Your task to perform on an android device: Search for macbook on ebay.com, select the first entry, and add it to the cart. Image 0: 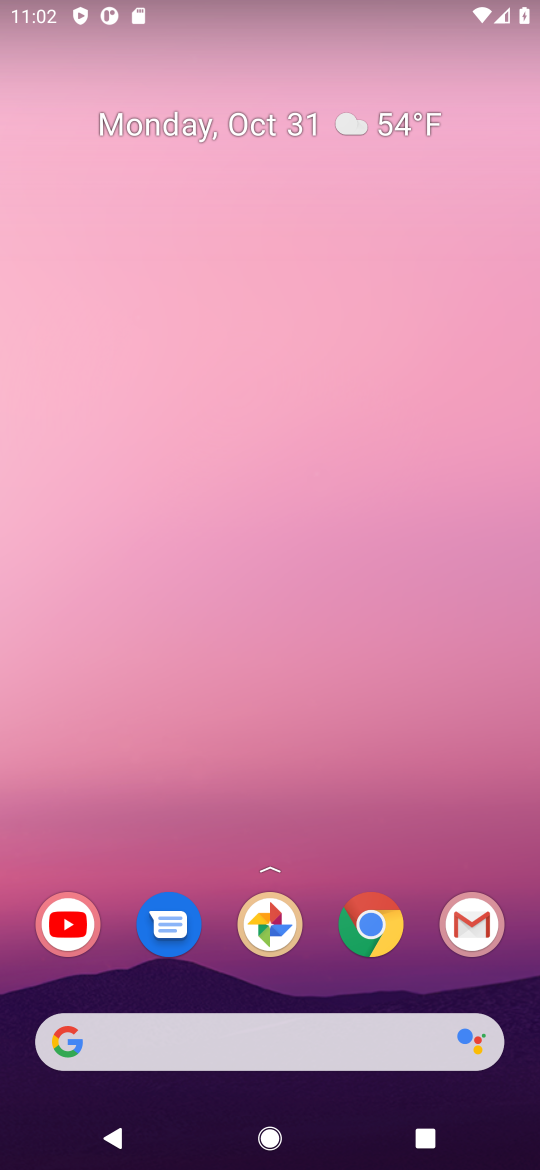
Step 0: press home button
Your task to perform on an android device: Search for macbook on ebay.com, select the first entry, and add it to the cart. Image 1: 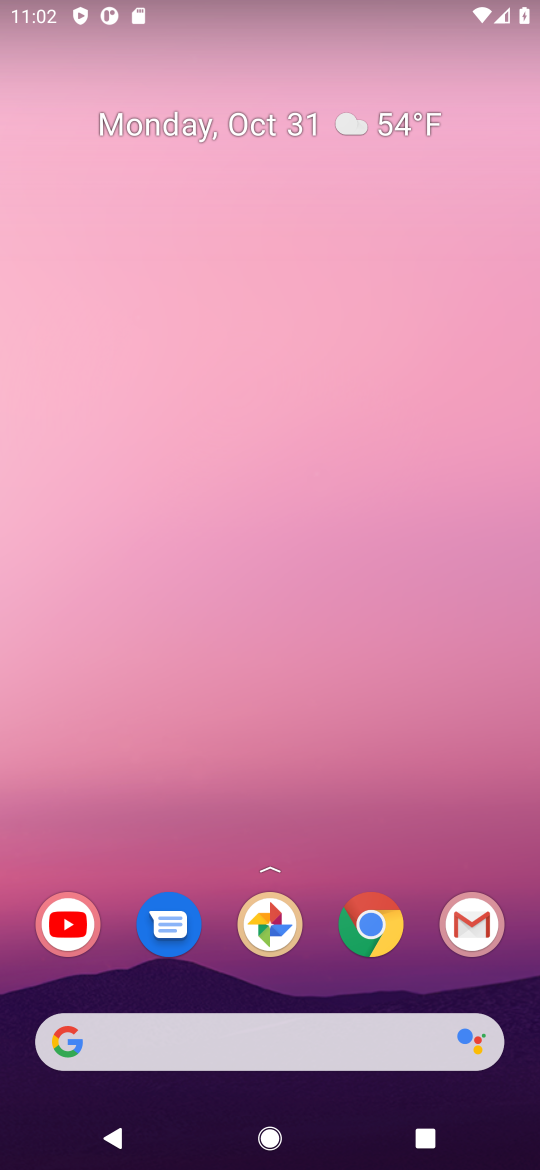
Step 1: click (384, 942)
Your task to perform on an android device: Search for macbook on ebay.com, select the first entry, and add it to the cart. Image 2: 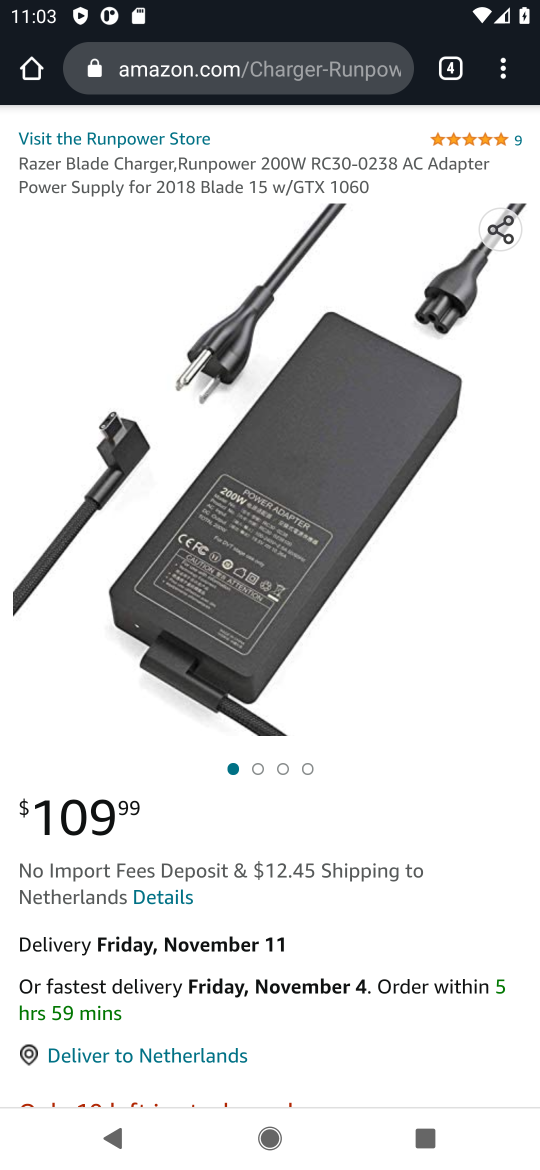
Step 2: click (302, 83)
Your task to perform on an android device: Search for macbook on ebay.com, select the first entry, and add it to the cart. Image 3: 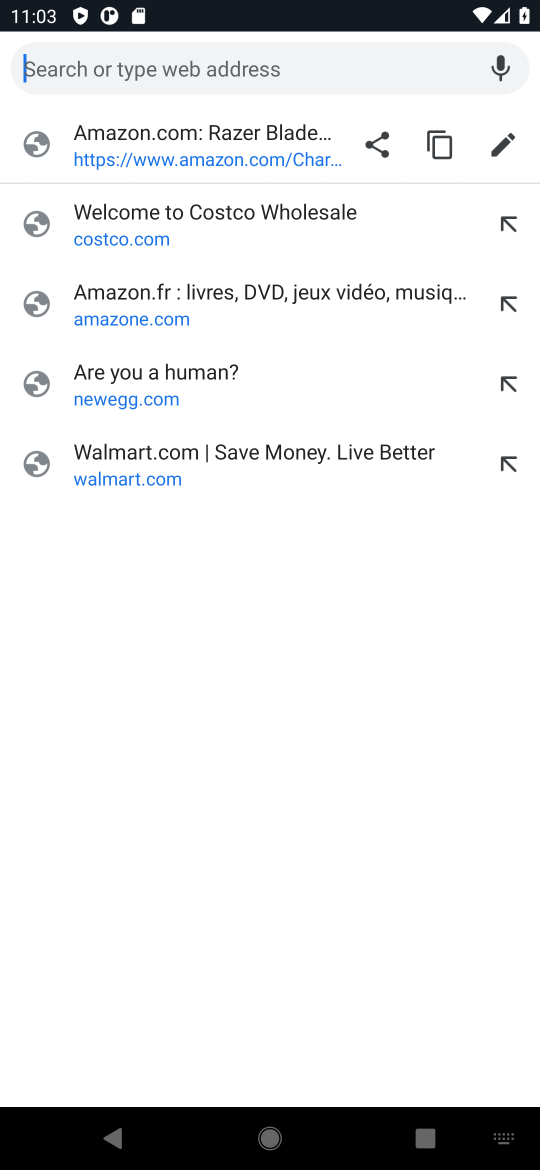
Step 3: type "ebay.com"
Your task to perform on an android device: Search for macbook on ebay.com, select the first entry, and add it to the cart. Image 4: 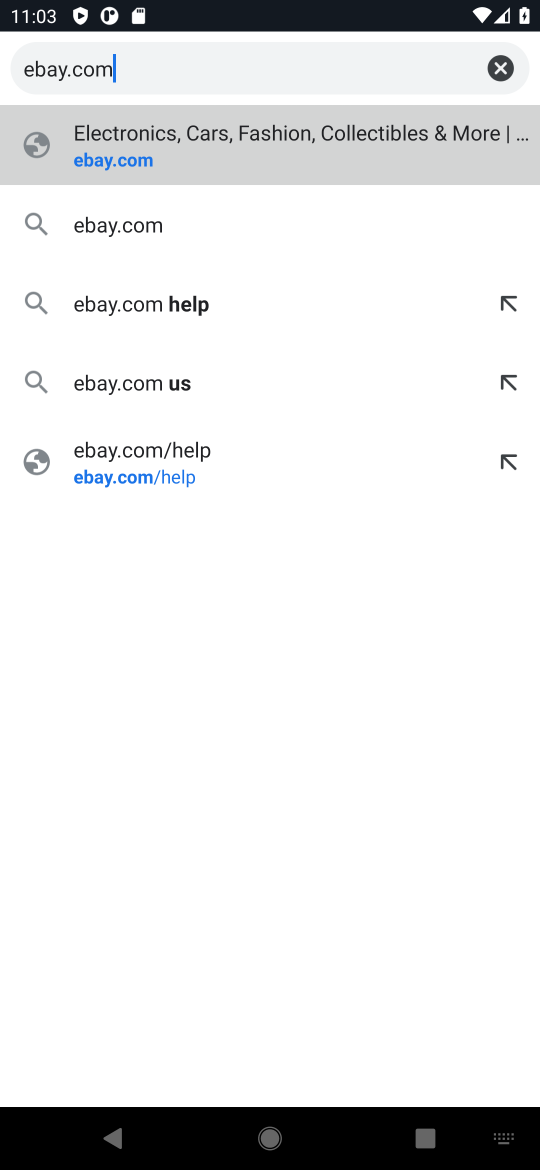
Step 4: click (154, 175)
Your task to perform on an android device: Search for macbook on ebay.com, select the first entry, and add it to the cart. Image 5: 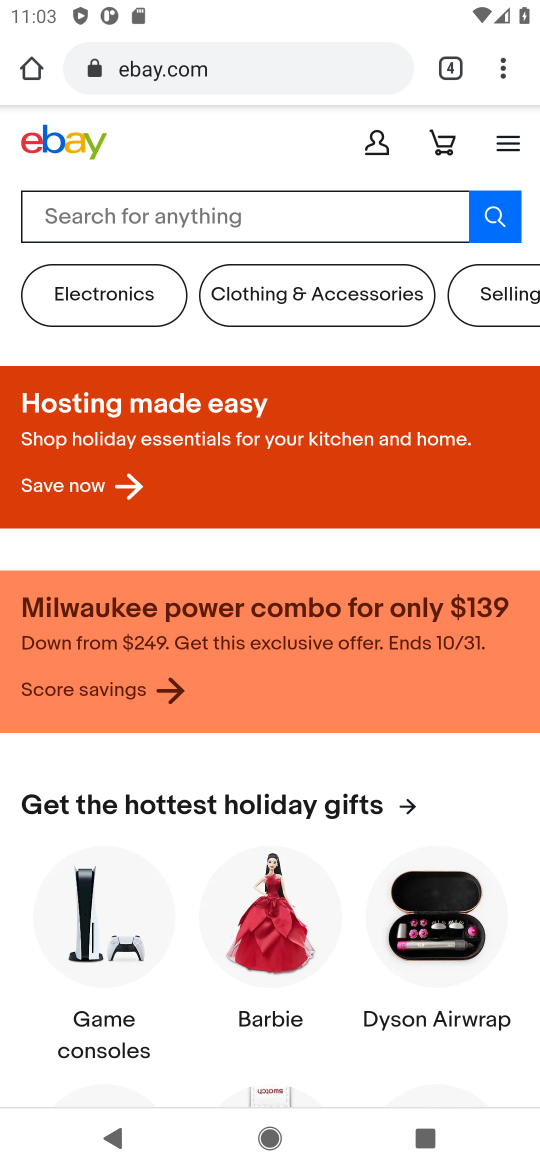
Step 5: click (230, 225)
Your task to perform on an android device: Search for macbook on ebay.com, select the first entry, and add it to the cart. Image 6: 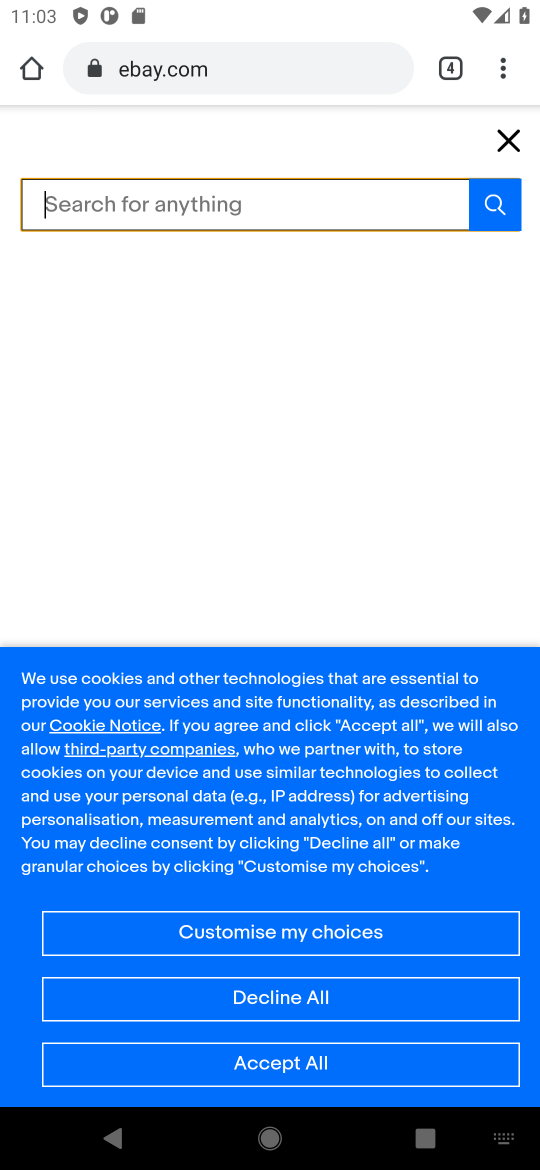
Step 6: type "macbook"
Your task to perform on an android device: Search for macbook on ebay.com, select the first entry, and add it to the cart. Image 7: 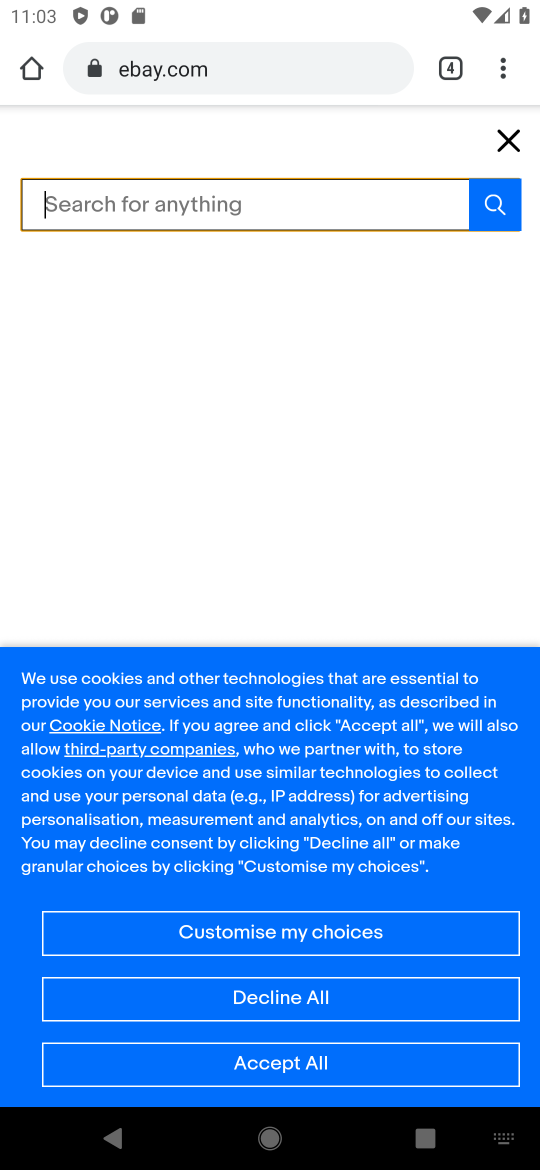
Step 7: click (277, 1063)
Your task to perform on an android device: Search for macbook on ebay.com, select the first entry, and add it to the cart. Image 8: 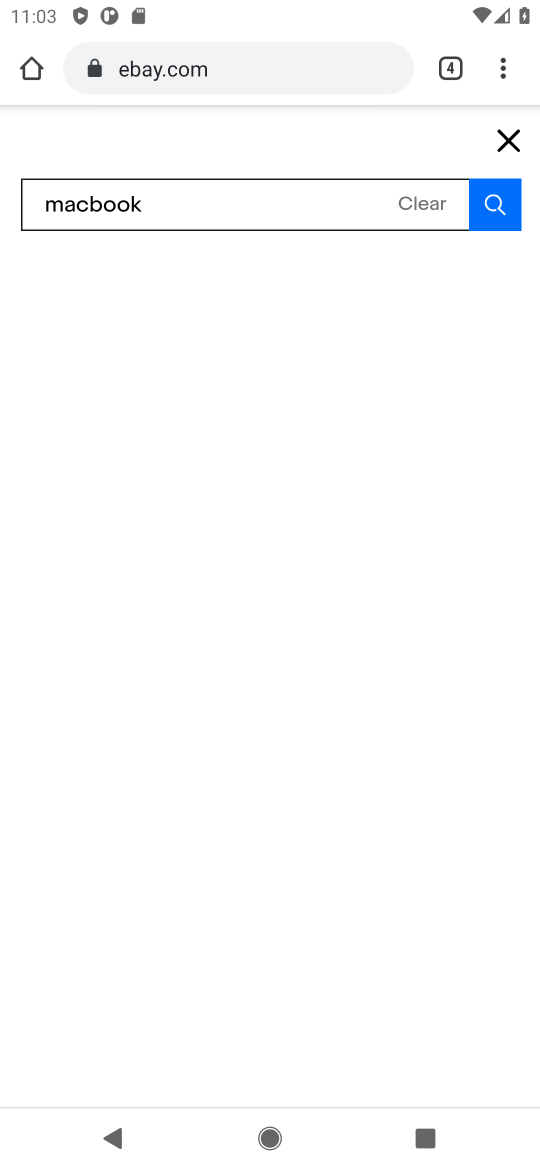
Step 8: click (233, 203)
Your task to perform on an android device: Search for macbook on ebay.com, select the first entry, and add it to the cart. Image 9: 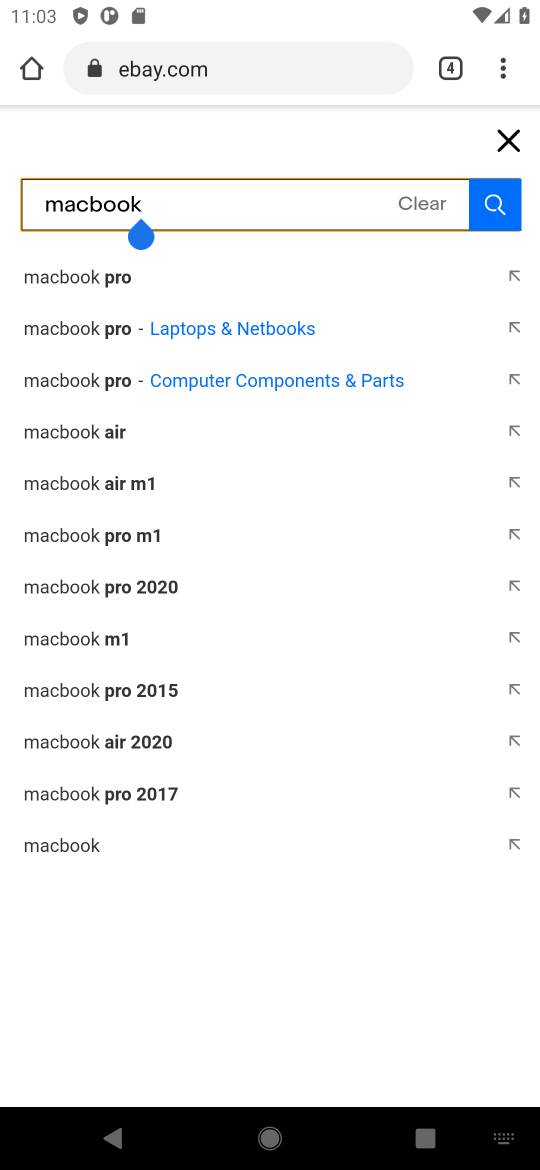
Step 9: click (119, 285)
Your task to perform on an android device: Search for macbook on ebay.com, select the first entry, and add it to the cart. Image 10: 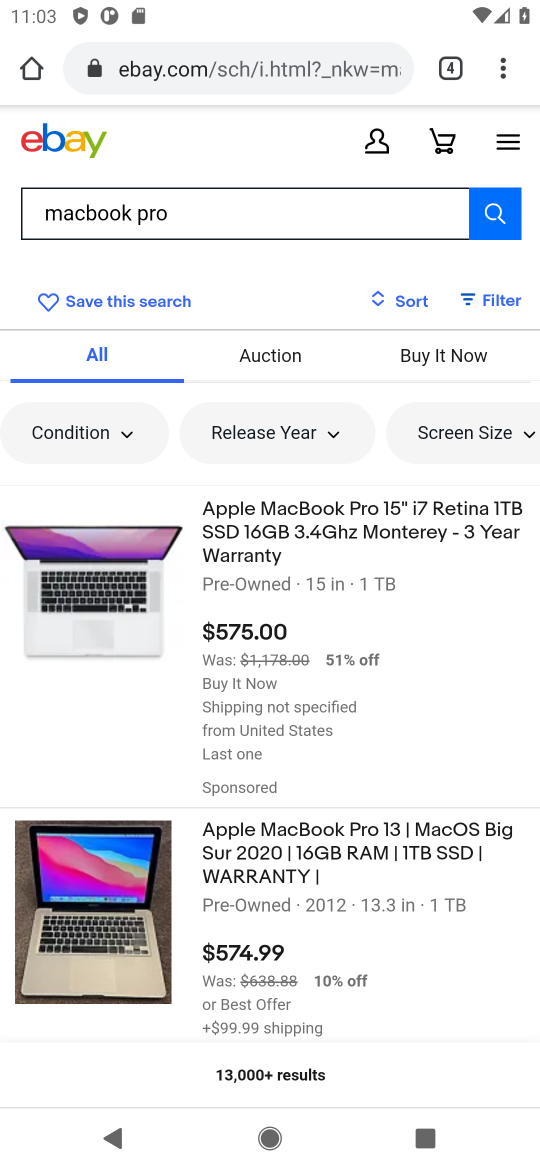
Step 10: click (136, 597)
Your task to perform on an android device: Search for macbook on ebay.com, select the first entry, and add it to the cart. Image 11: 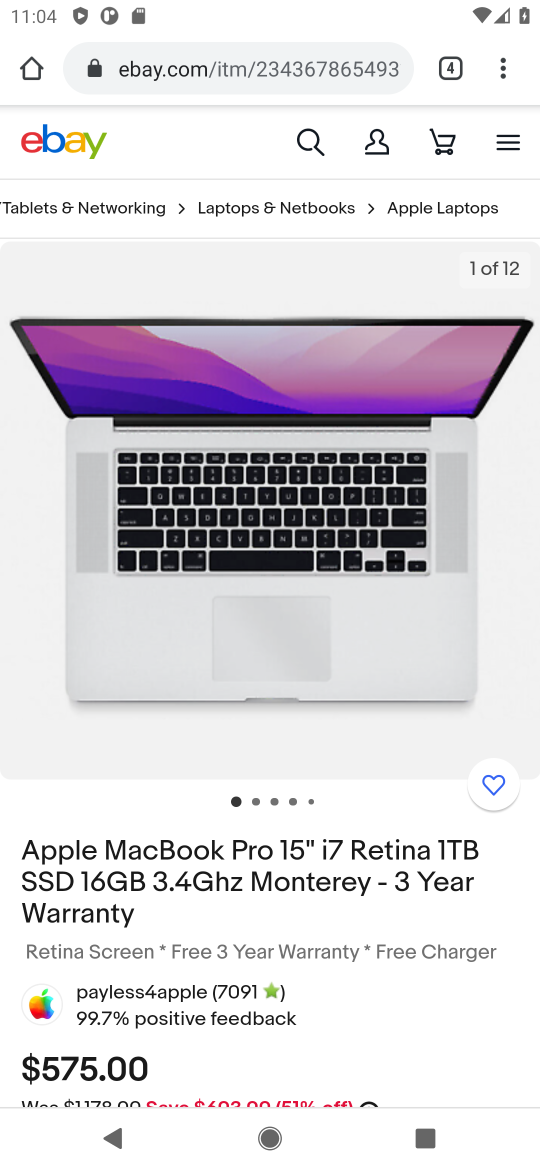
Step 11: drag from (323, 648) to (359, 424)
Your task to perform on an android device: Search for macbook on ebay.com, select the first entry, and add it to the cart. Image 12: 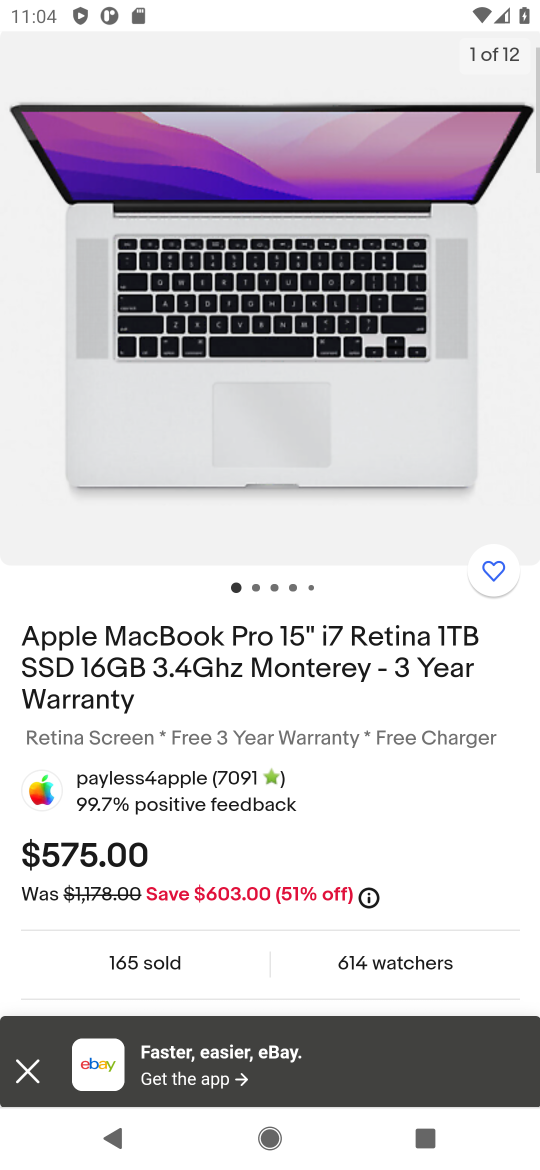
Step 12: drag from (295, 694) to (313, 402)
Your task to perform on an android device: Search for macbook on ebay.com, select the first entry, and add it to the cart. Image 13: 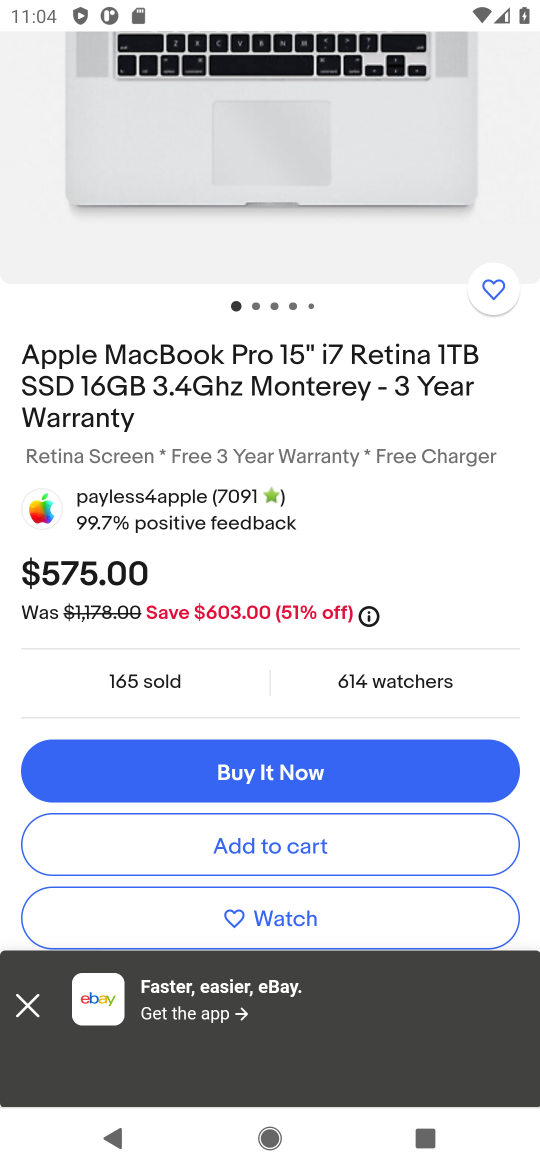
Step 13: drag from (283, 647) to (333, 452)
Your task to perform on an android device: Search for macbook on ebay.com, select the first entry, and add it to the cart. Image 14: 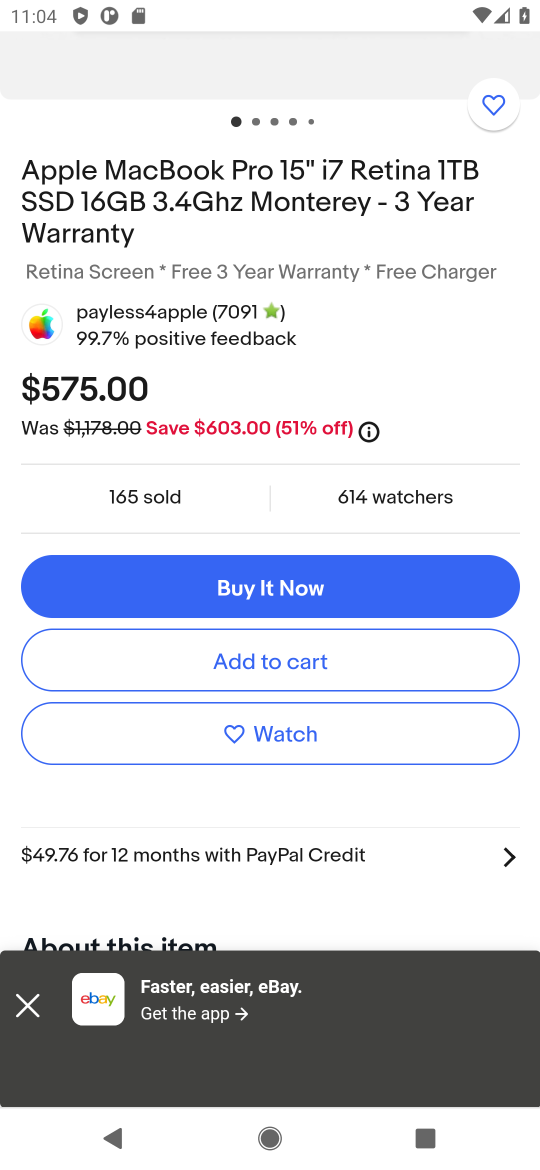
Step 14: drag from (295, 830) to (359, 539)
Your task to perform on an android device: Search for macbook on ebay.com, select the first entry, and add it to the cart. Image 15: 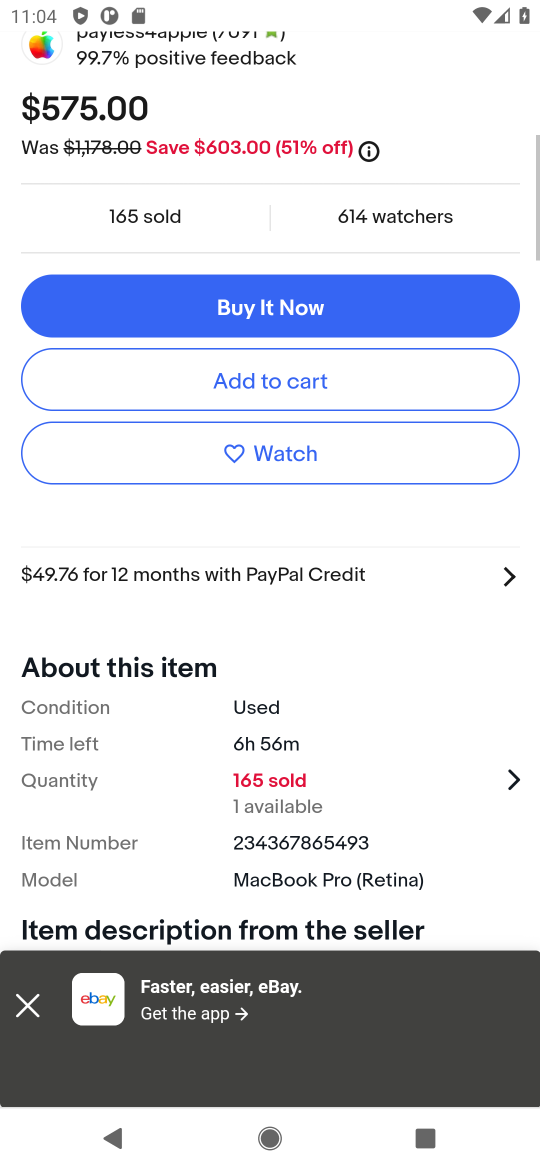
Step 15: drag from (290, 767) to (339, 504)
Your task to perform on an android device: Search for macbook on ebay.com, select the first entry, and add it to the cart. Image 16: 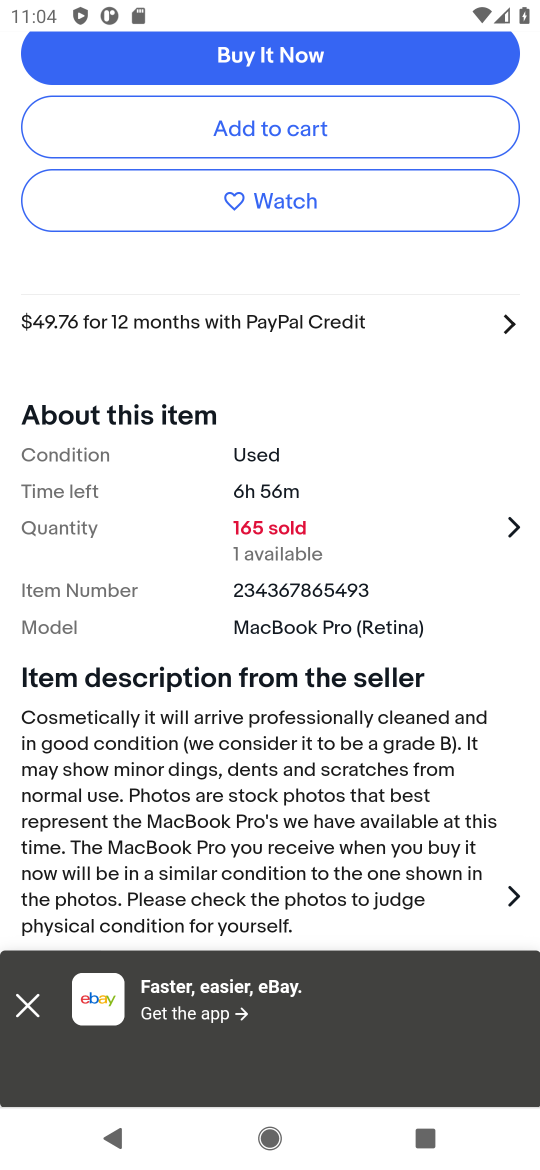
Step 16: drag from (300, 741) to (348, 545)
Your task to perform on an android device: Search for macbook on ebay.com, select the first entry, and add it to the cart. Image 17: 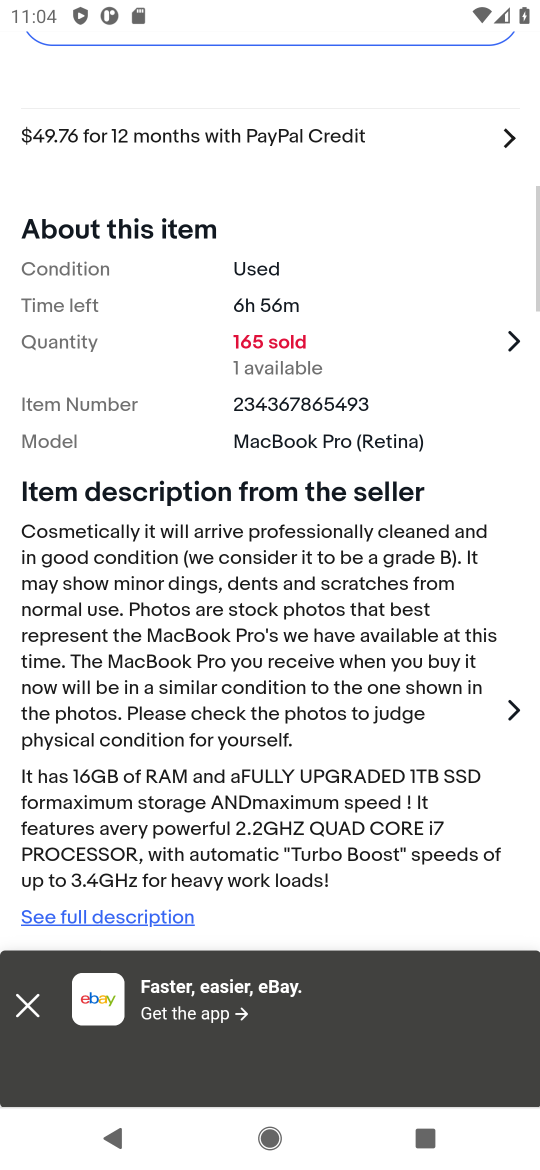
Step 17: drag from (348, 545) to (348, 779)
Your task to perform on an android device: Search for macbook on ebay.com, select the first entry, and add it to the cart. Image 18: 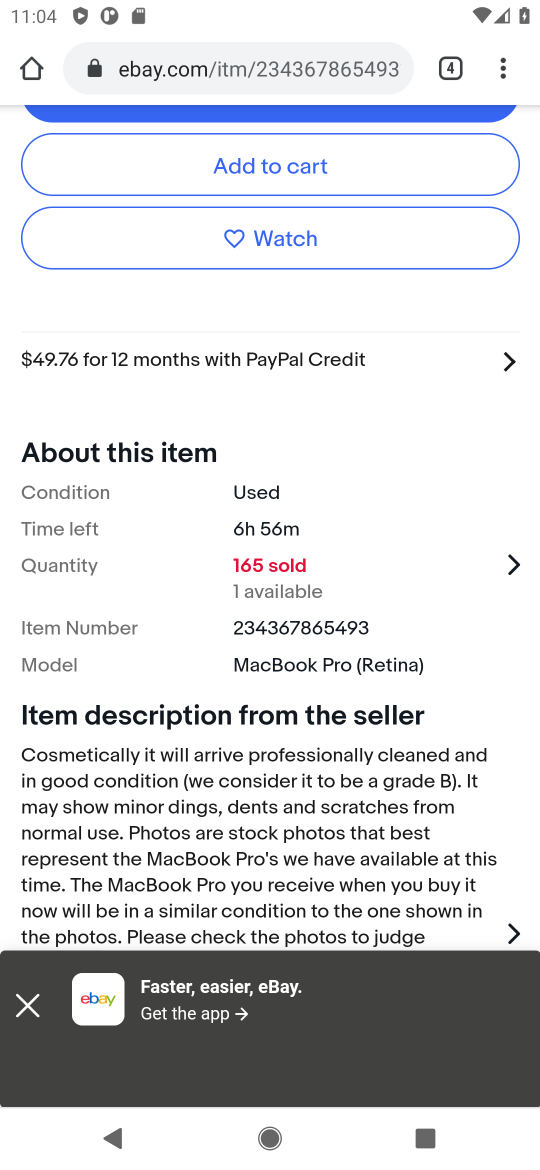
Step 18: drag from (331, 543) to (318, 832)
Your task to perform on an android device: Search for macbook on ebay.com, select the first entry, and add it to the cart. Image 19: 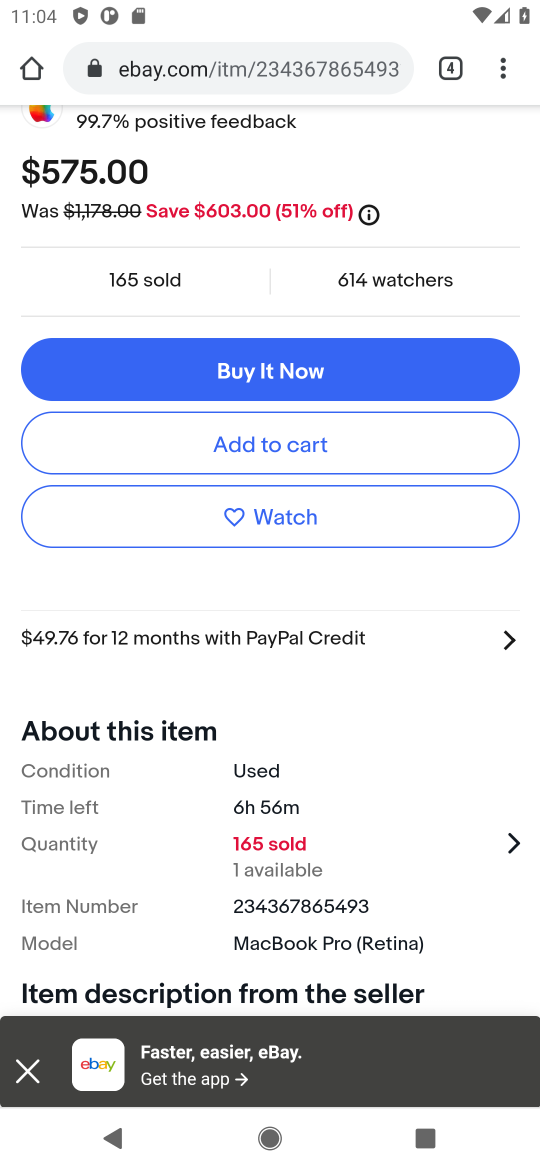
Step 19: click (290, 453)
Your task to perform on an android device: Search for macbook on ebay.com, select the first entry, and add it to the cart. Image 20: 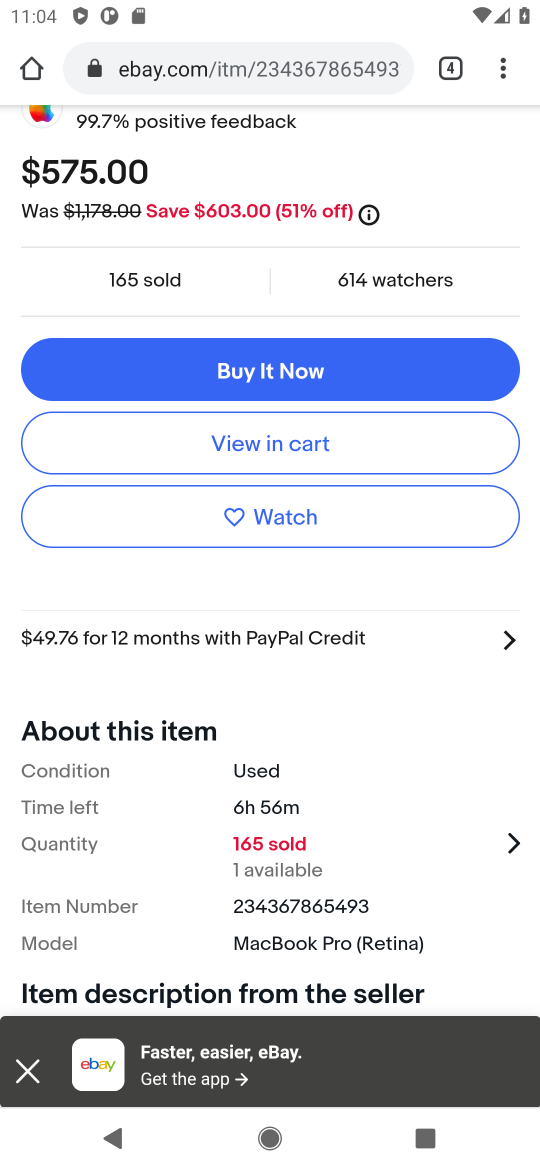
Step 20: drag from (298, 450) to (308, 818)
Your task to perform on an android device: Search for macbook on ebay.com, select the first entry, and add it to the cart. Image 21: 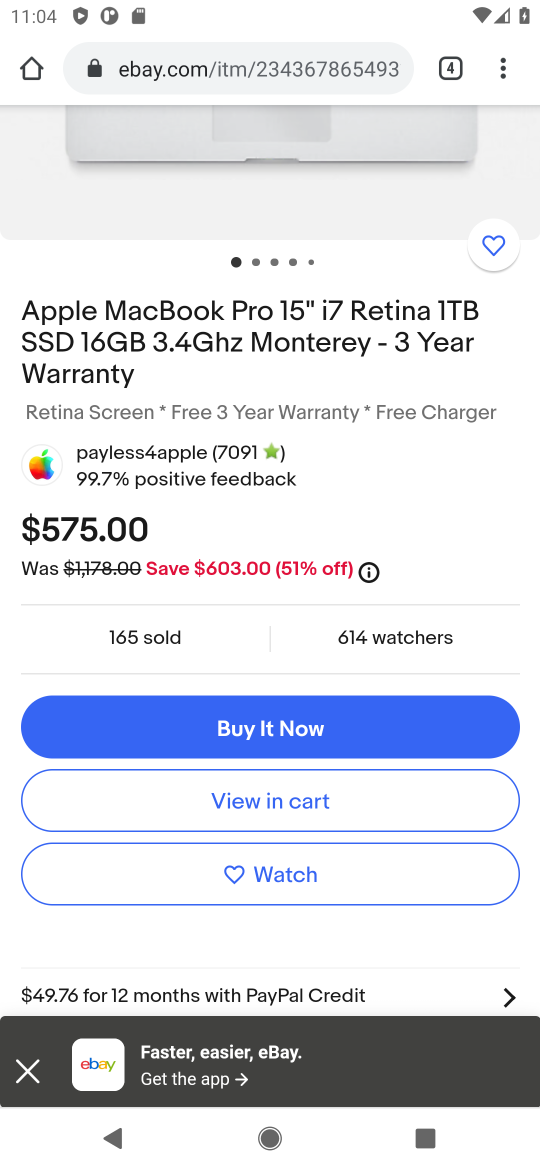
Step 21: drag from (304, 509) to (331, 823)
Your task to perform on an android device: Search for macbook on ebay.com, select the first entry, and add it to the cart. Image 22: 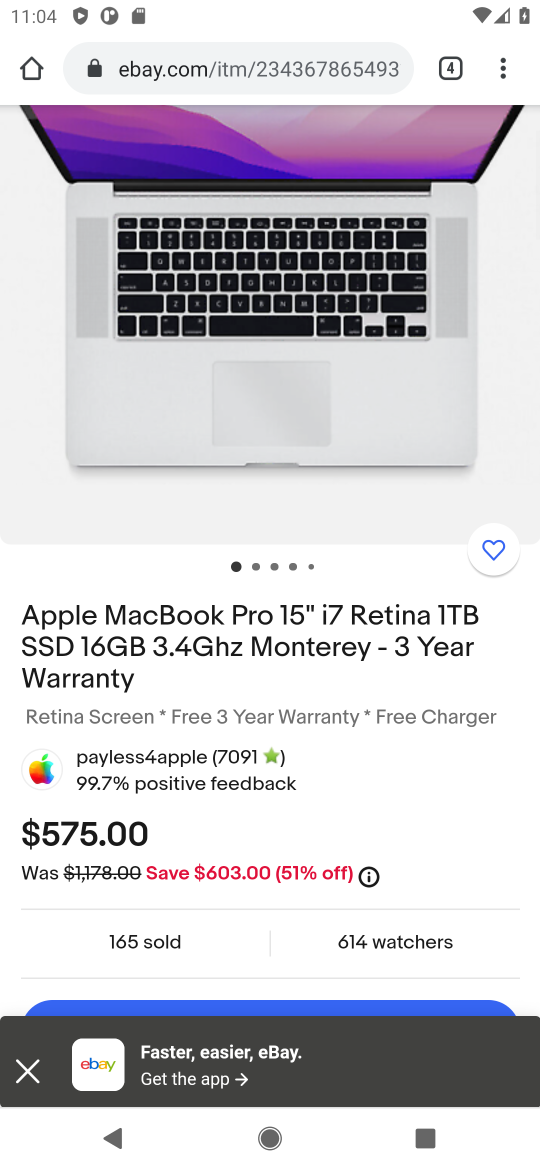
Step 22: drag from (346, 678) to (373, 976)
Your task to perform on an android device: Search for macbook on ebay.com, select the first entry, and add it to the cart. Image 23: 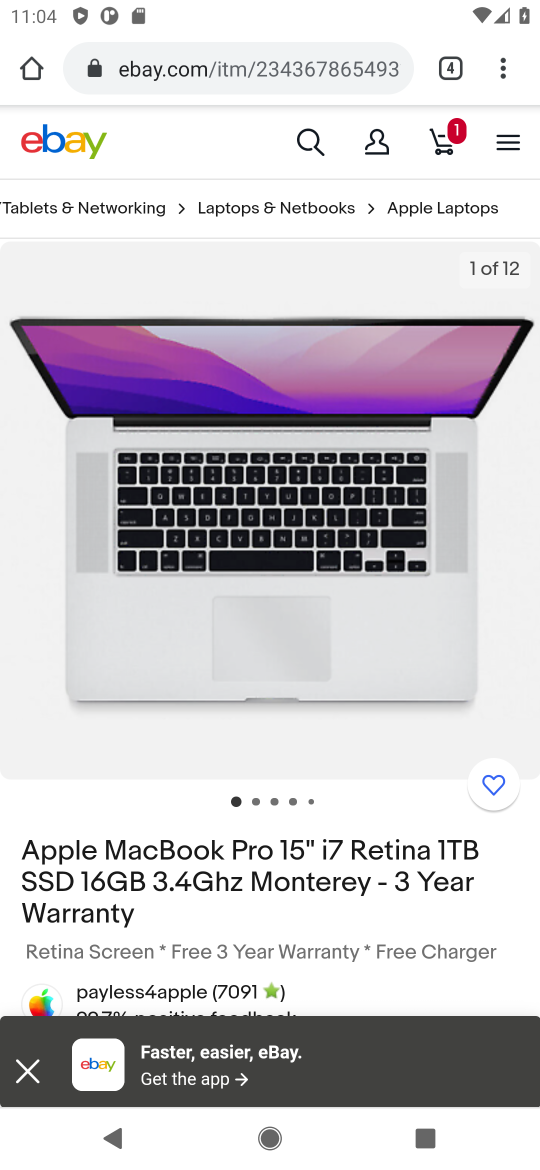
Step 23: click (450, 138)
Your task to perform on an android device: Search for macbook on ebay.com, select the first entry, and add it to the cart. Image 24: 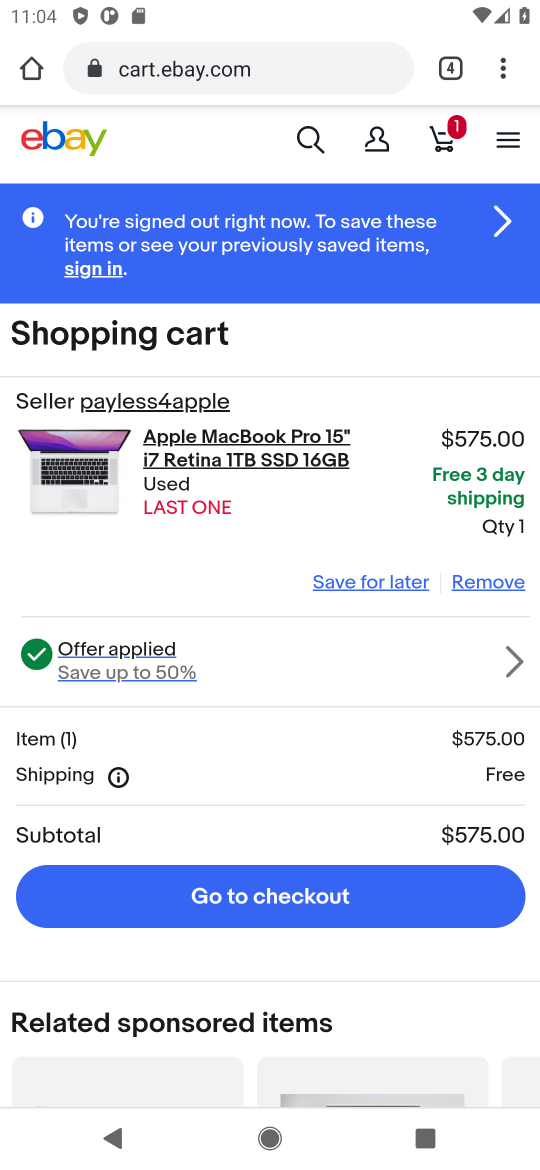
Step 24: click (385, 914)
Your task to perform on an android device: Search for macbook on ebay.com, select the first entry, and add it to the cart. Image 25: 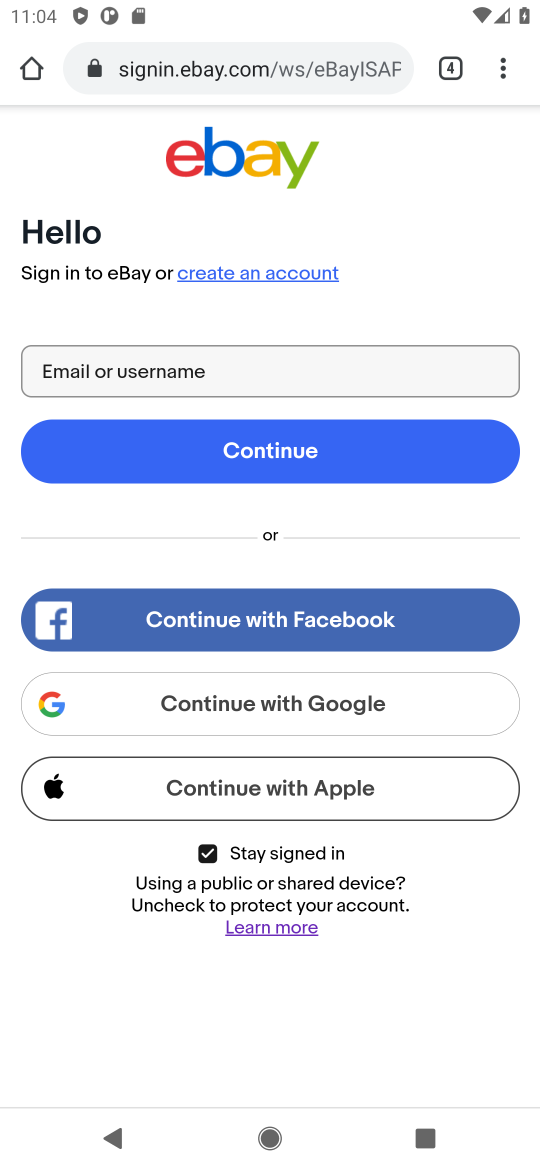
Step 25: task complete